Your task to perform on an android device: toggle translation in the chrome app Image 0: 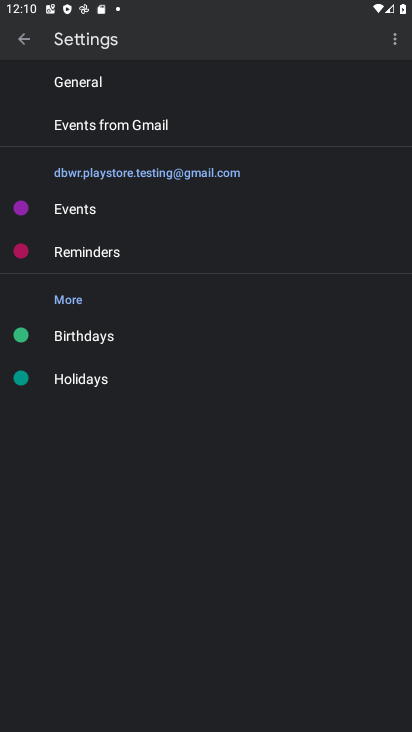
Step 0: press home button
Your task to perform on an android device: toggle translation in the chrome app Image 1: 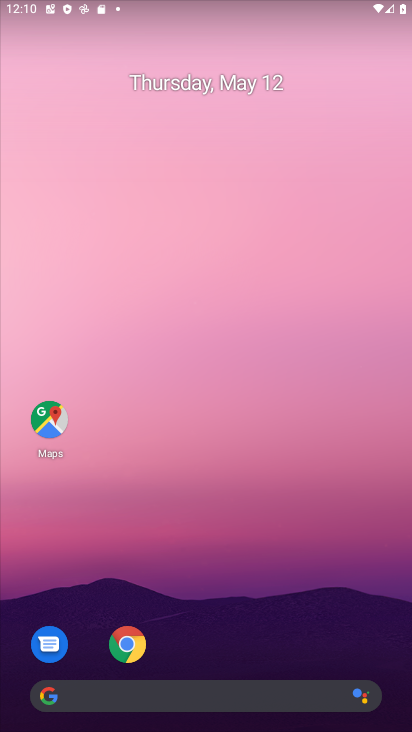
Step 1: drag from (254, 636) to (254, 183)
Your task to perform on an android device: toggle translation in the chrome app Image 2: 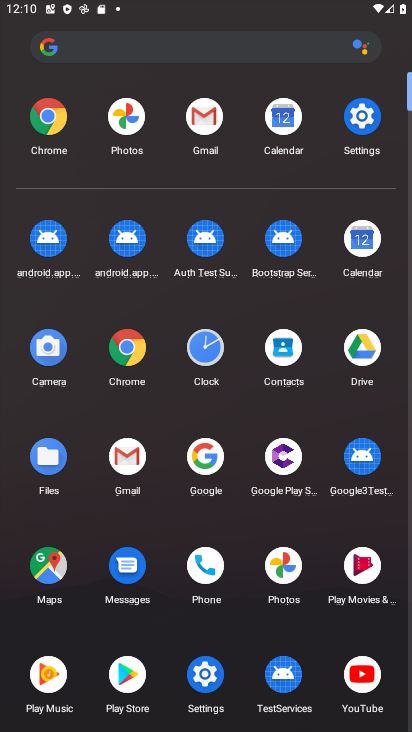
Step 2: click (56, 135)
Your task to perform on an android device: toggle translation in the chrome app Image 3: 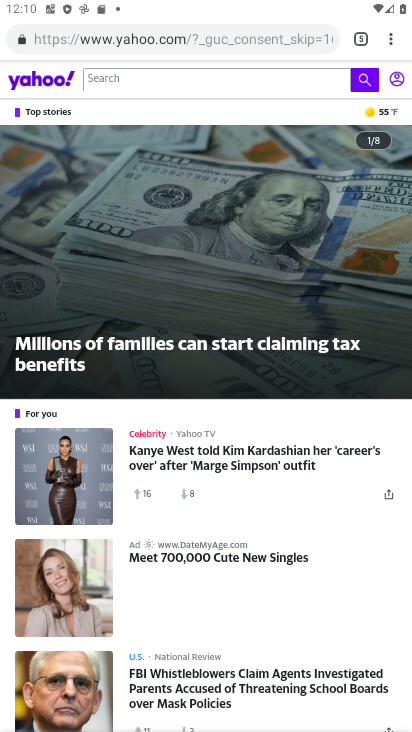
Step 3: click (392, 45)
Your task to perform on an android device: toggle translation in the chrome app Image 4: 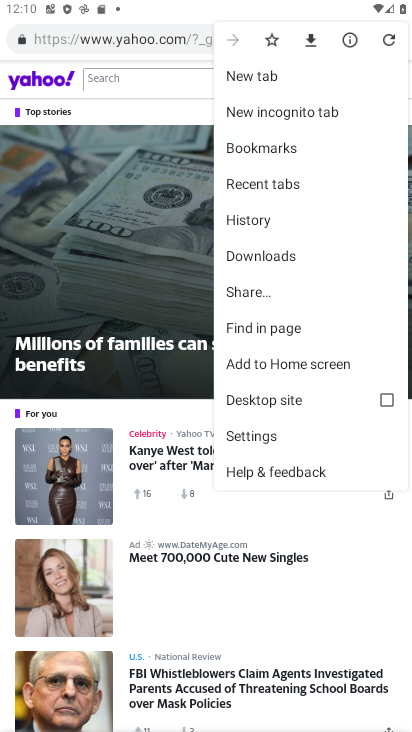
Step 4: click (263, 429)
Your task to perform on an android device: toggle translation in the chrome app Image 5: 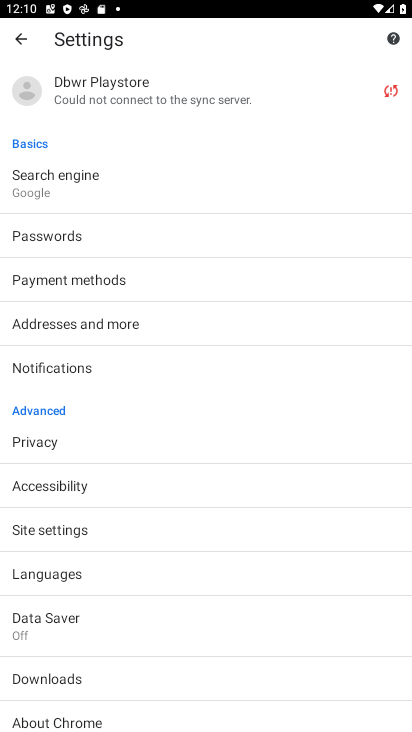
Step 5: click (162, 580)
Your task to perform on an android device: toggle translation in the chrome app Image 6: 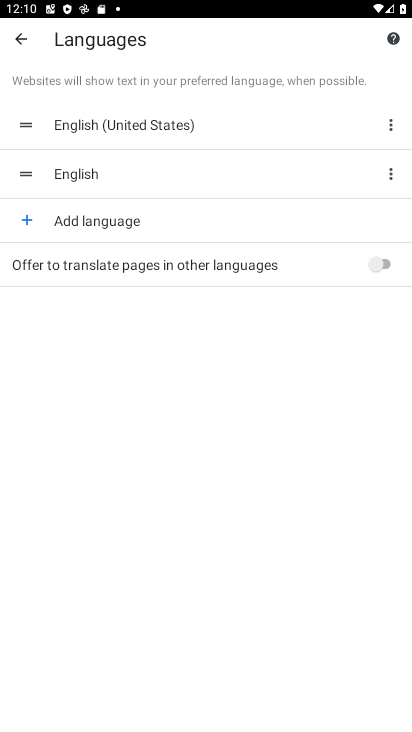
Step 6: click (314, 257)
Your task to perform on an android device: toggle translation in the chrome app Image 7: 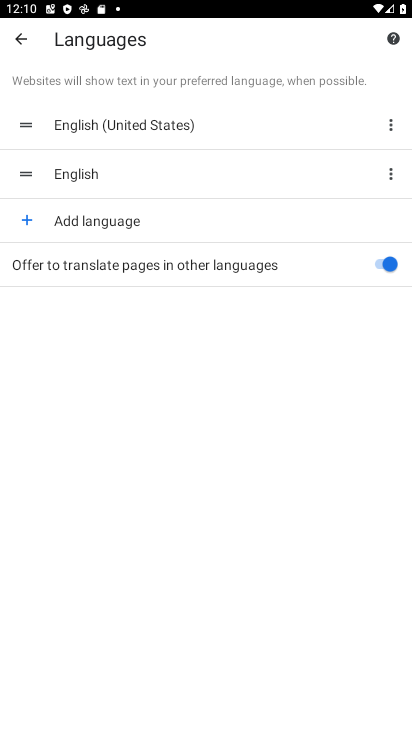
Step 7: task complete